Your task to perform on an android device: turn pop-ups on in chrome Image 0: 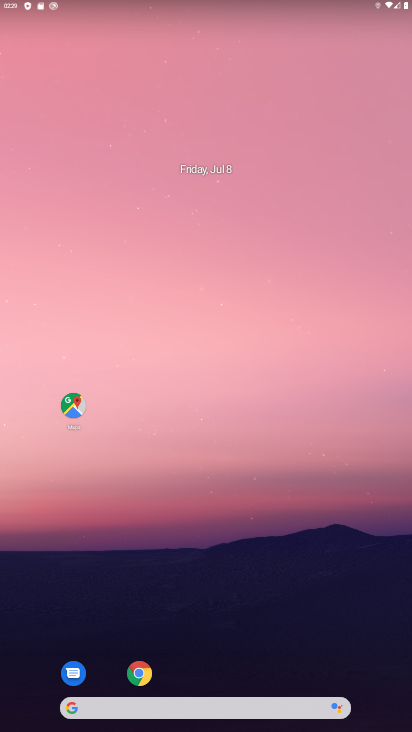
Step 0: press home button
Your task to perform on an android device: turn pop-ups on in chrome Image 1: 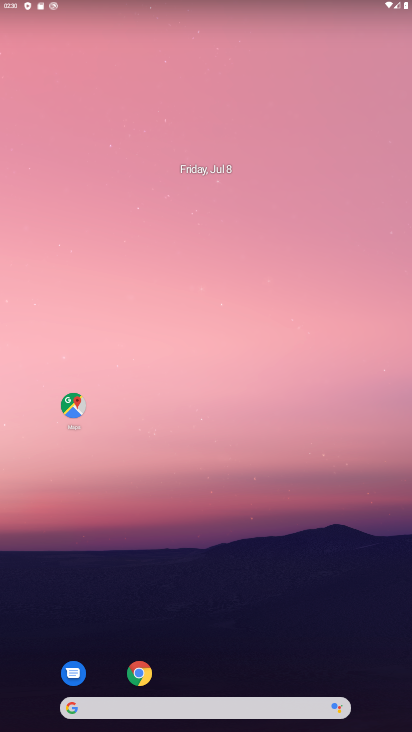
Step 1: click (141, 691)
Your task to perform on an android device: turn pop-ups on in chrome Image 2: 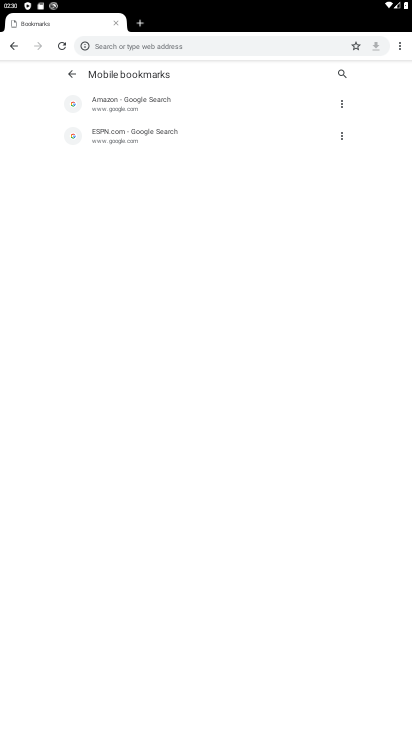
Step 2: drag from (404, 42) to (311, 201)
Your task to perform on an android device: turn pop-ups on in chrome Image 3: 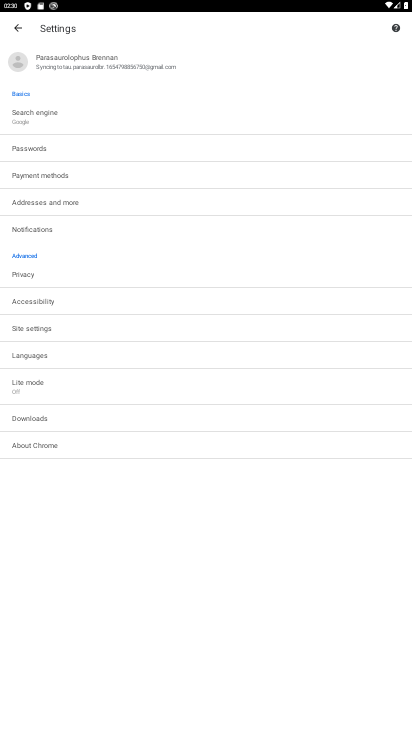
Step 3: click (30, 330)
Your task to perform on an android device: turn pop-ups on in chrome Image 4: 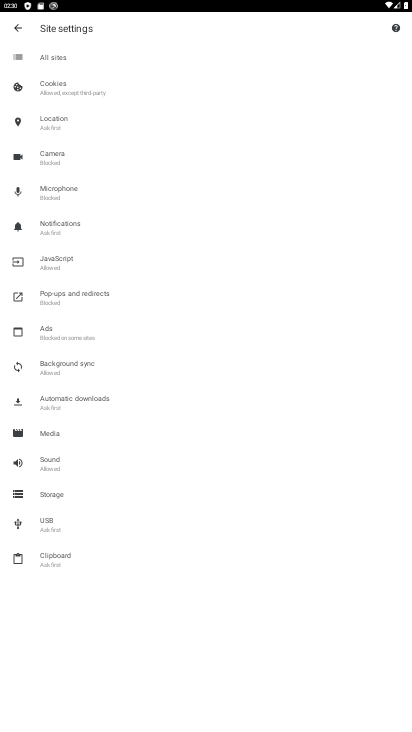
Step 4: click (49, 303)
Your task to perform on an android device: turn pop-ups on in chrome Image 5: 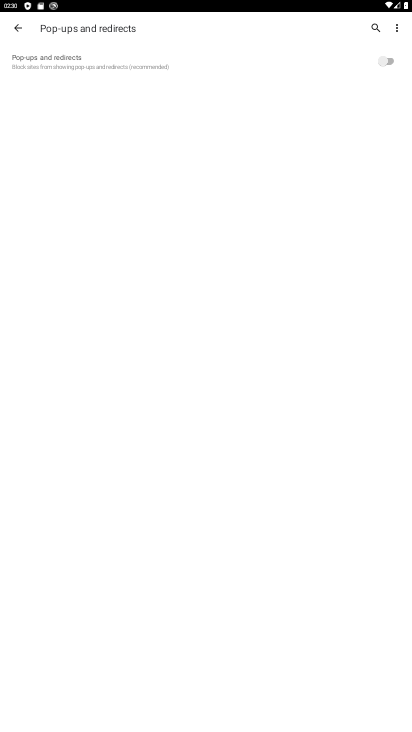
Step 5: click (249, 58)
Your task to perform on an android device: turn pop-ups on in chrome Image 6: 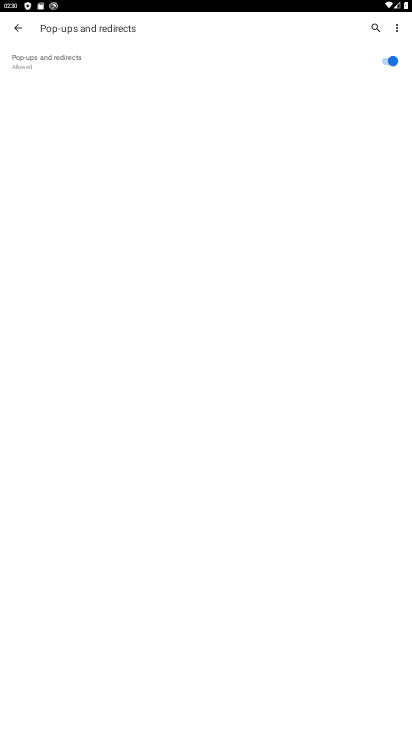
Step 6: task complete